Your task to perform on an android device: Open Google Maps and go to "Timeline" Image 0: 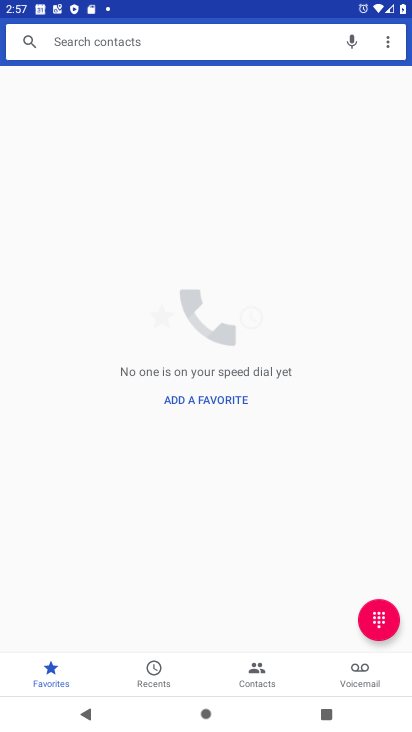
Step 0: press home button
Your task to perform on an android device: Open Google Maps and go to "Timeline" Image 1: 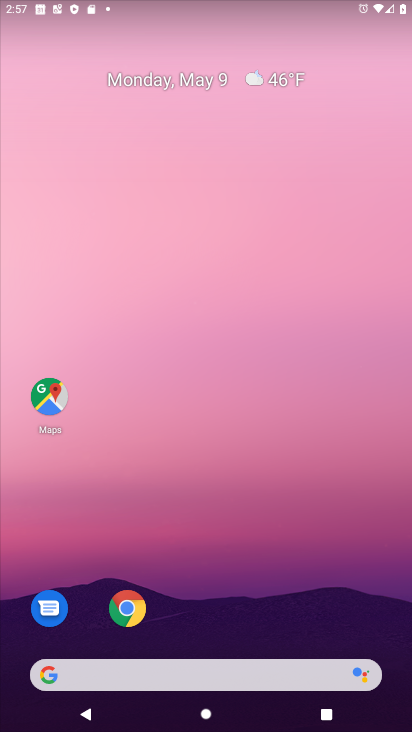
Step 1: click (50, 402)
Your task to perform on an android device: Open Google Maps and go to "Timeline" Image 2: 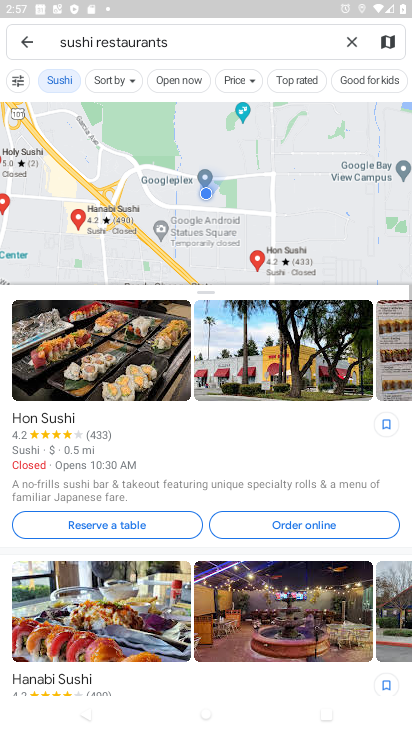
Step 2: click (0, 49)
Your task to perform on an android device: Open Google Maps and go to "Timeline" Image 3: 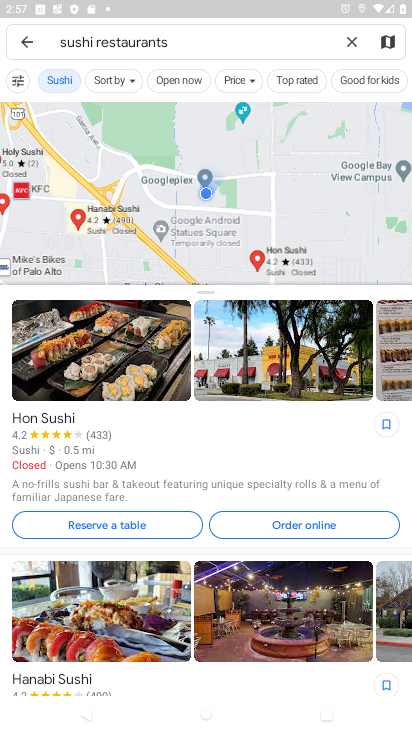
Step 3: click (27, 40)
Your task to perform on an android device: Open Google Maps and go to "Timeline" Image 4: 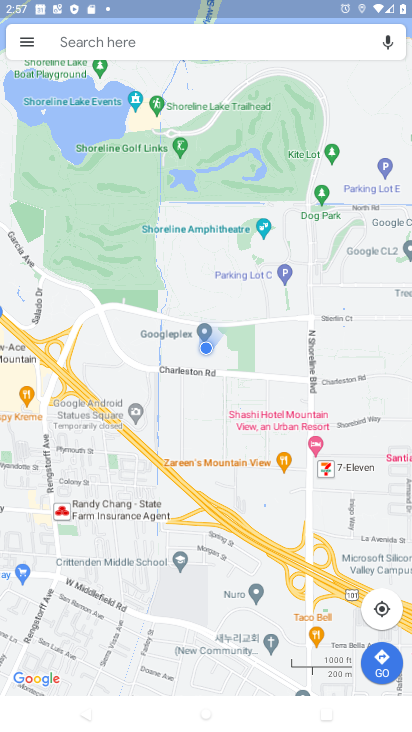
Step 4: click (27, 40)
Your task to perform on an android device: Open Google Maps and go to "Timeline" Image 5: 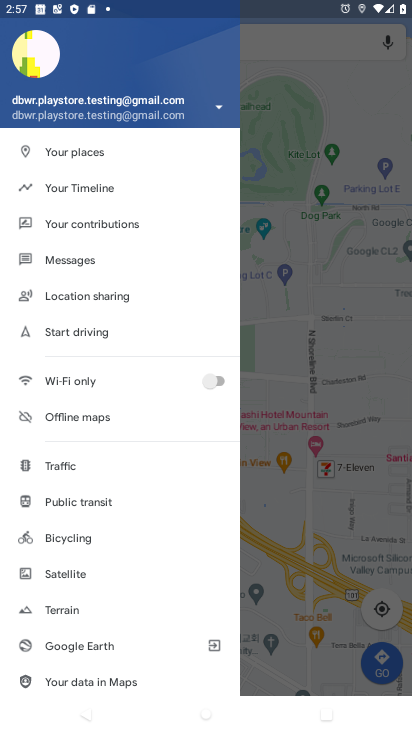
Step 5: click (85, 191)
Your task to perform on an android device: Open Google Maps and go to "Timeline" Image 6: 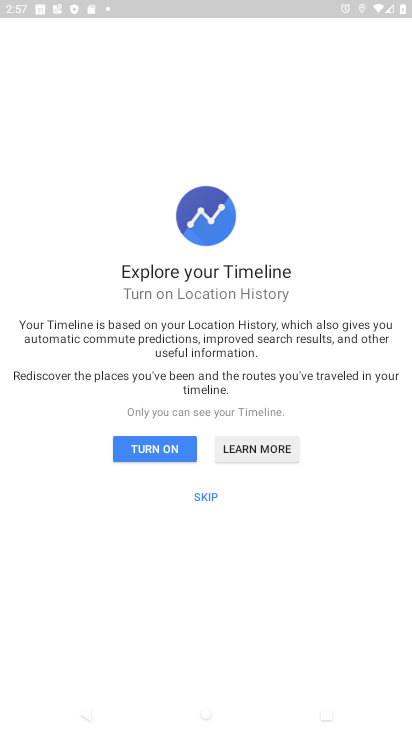
Step 6: task complete